Your task to perform on an android device: check data usage Image 0: 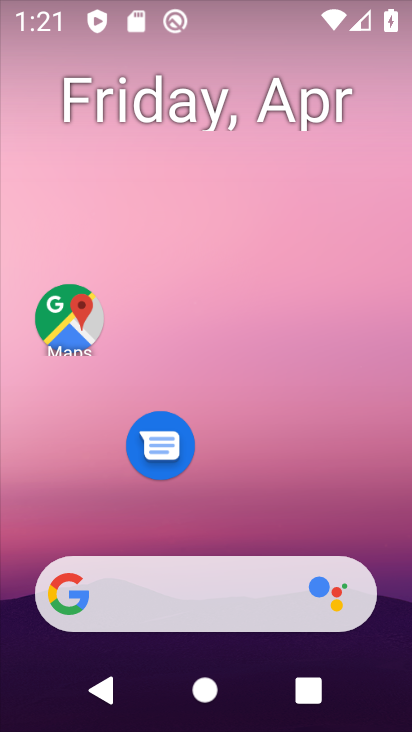
Step 0: drag from (298, 476) to (294, 81)
Your task to perform on an android device: check data usage Image 1: 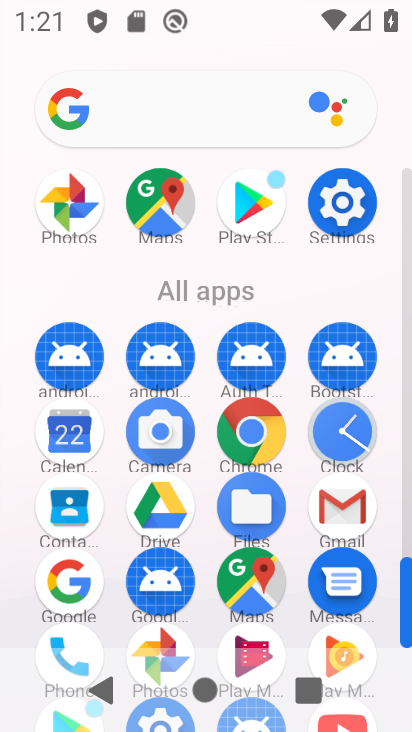
Step 1: click (342, 222)
Your task to perform on an android device: check data usage Image 2: 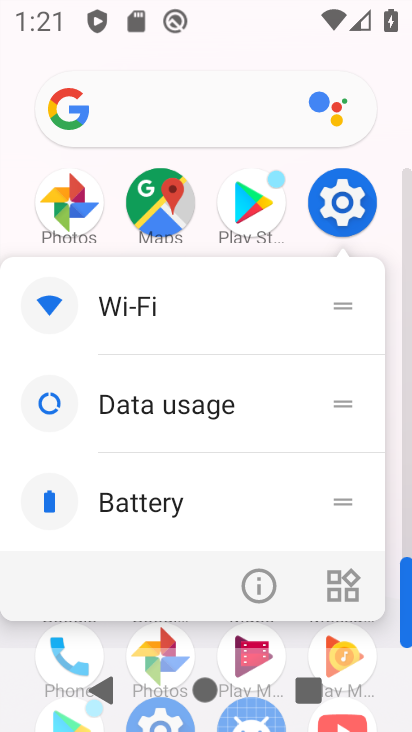
Step 2: click (342, 221)
Your task to perform on an android device: check data usage Image 3: 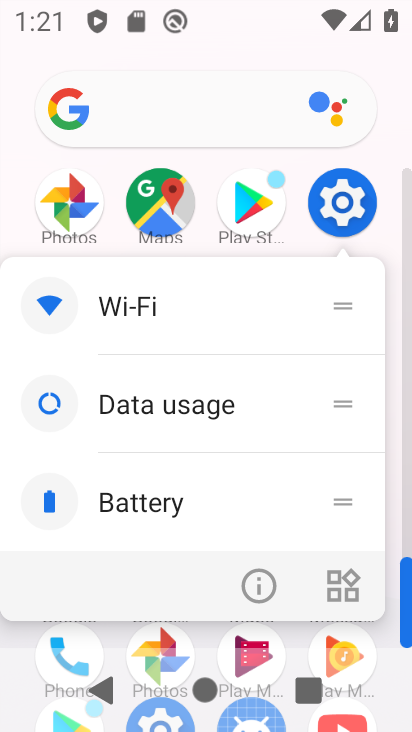
Step 3: click (342, 221)
Your task to perform on an android device: check data usage Image 4: 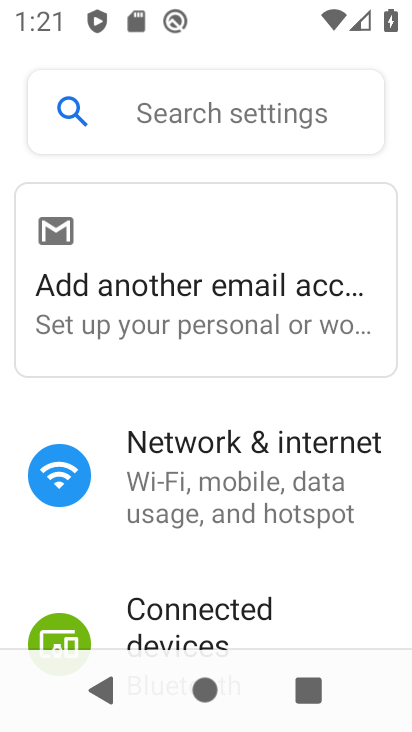
Step 4: drag from (241, 439) to (238, 326)
Your task to perform on an android device: check data usage Image 5: 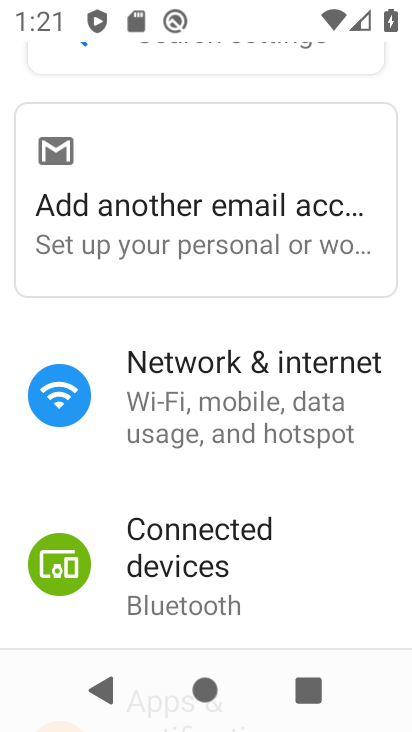
Step 5: click (219, 362)
Your task to perform on an android device: check data usage Image 6: 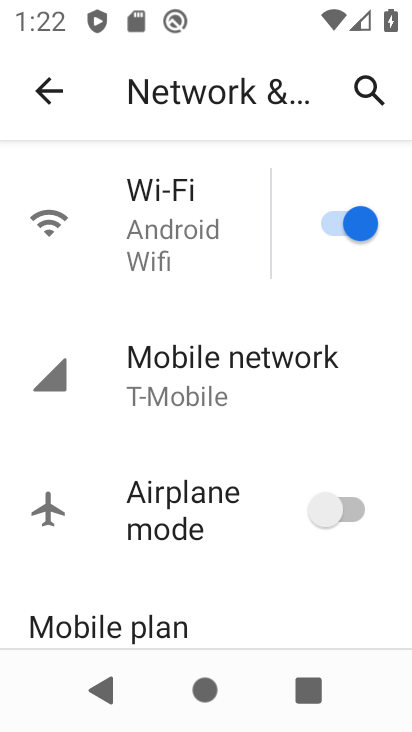
Step 6: click (191, 394)
Your task to perform on an android device: check data usage Image 7: 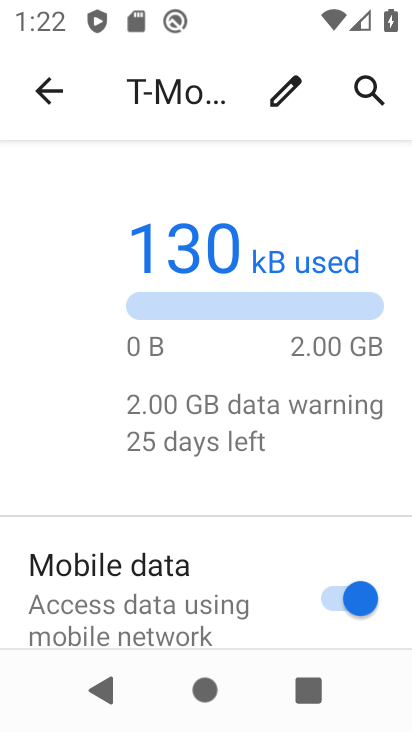
Step 7: drag from (190, 525) to (228, 272)
Your task to perform on an android device: check data usage Image 8: 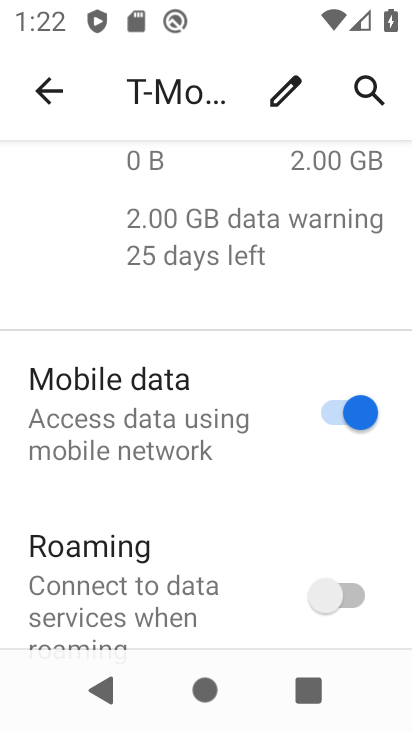
Step 8: drag from (188, 424) to (195, 297)
Your task to perform on an android device: check data usage Image 9: 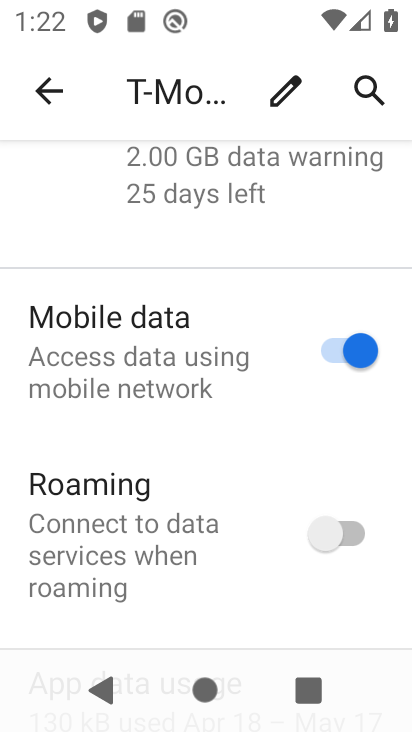
Step 9: drag from (88, 544) to (126, 351)
Your task to perform on an android device: check data usage Image 10: 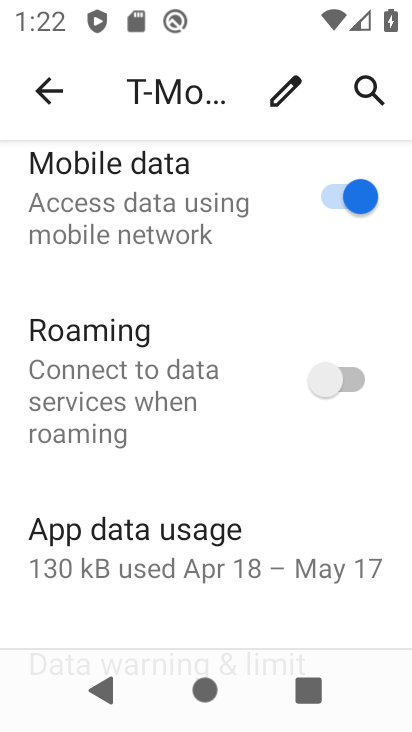
Step 10: click (127, 572)
Your task to perform on an android device: check data usage Image 11: 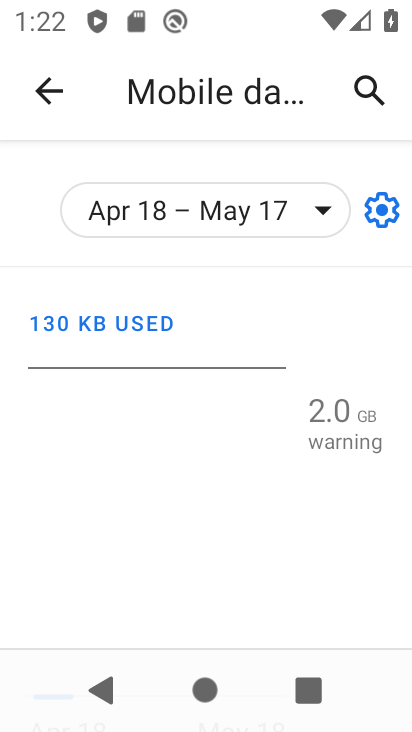
Step 11: task complete